Your task to perform on an android device: change your default location settings in chrome Image 0: 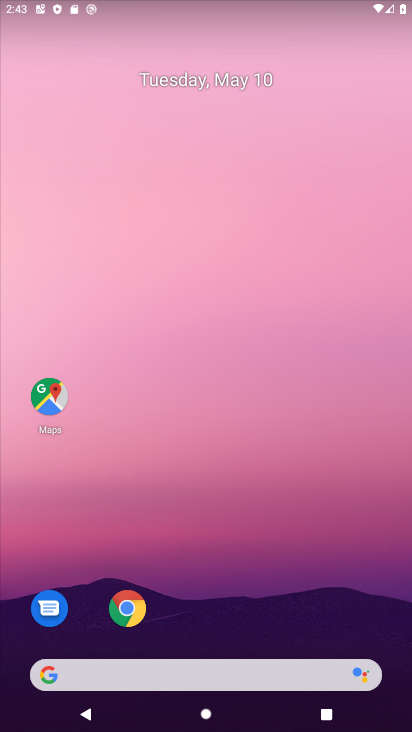
Step 0: drag from (248, 617) to (340, 25)
Your task to perform on an android device: change your default location settings in chrome Image 1: 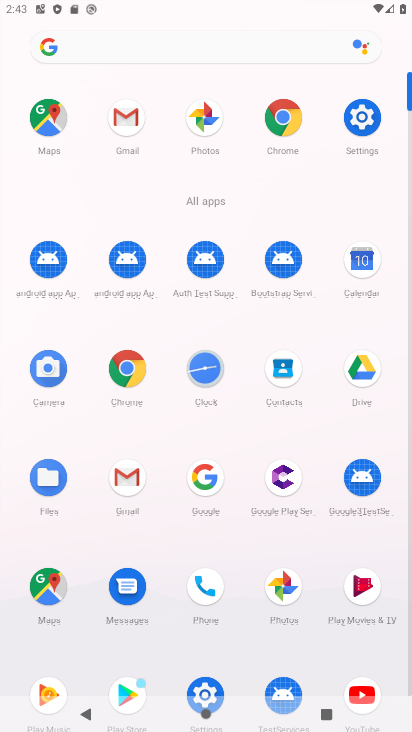
Step 1: click (135, 372)
Your task to perform on an android device: change your default location settings in chrome Image 2: 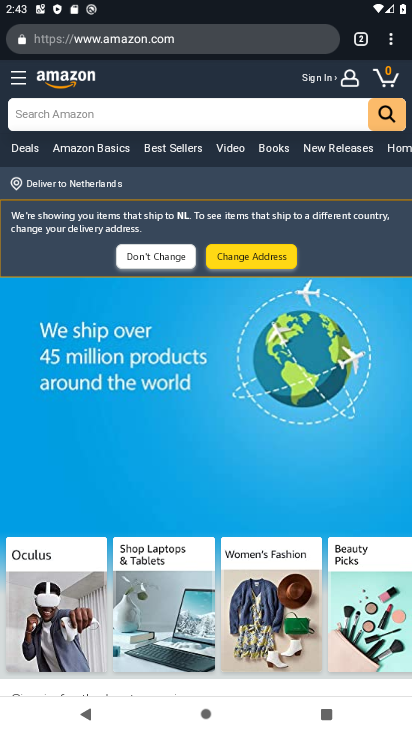
Step 2: click (390, 34)
Your task to perform on an android device: change your default location settings in chrome Image 3: 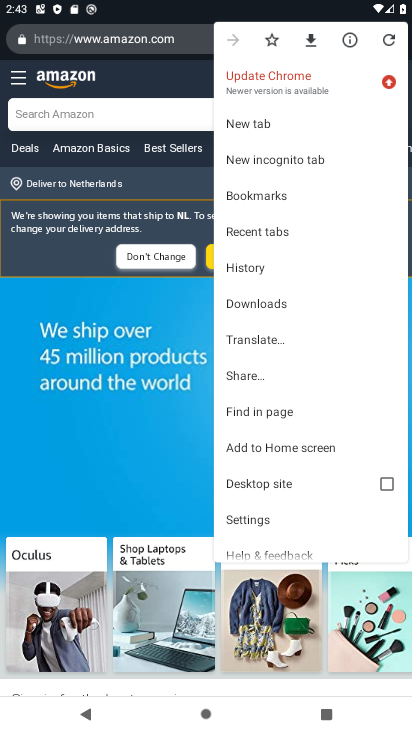
Step 3: click (251, 512)
Your task to perform on an android device: change your default location settings in chrome Image 4: 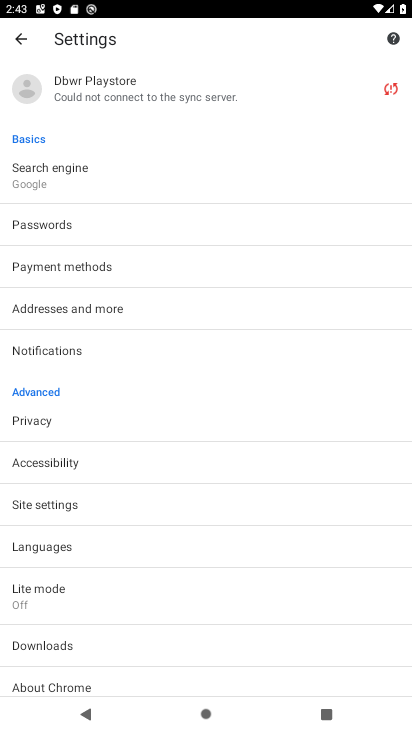
Step 4: click (77, 506)
Your task to perform on an android device: change your default location settings in chrome Image 5: 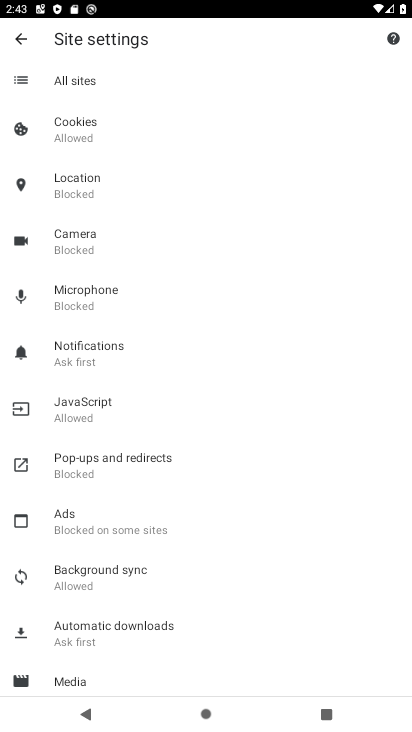
Step 5: click (89, 185)
Your task to perform on an android device: change your default location settings in chrome Image 6: 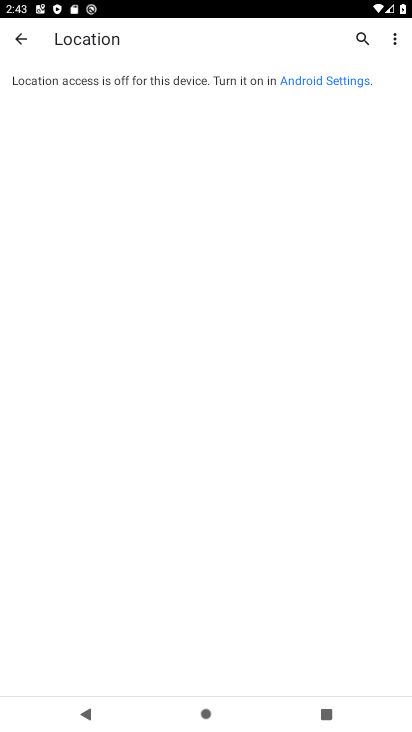
Step 6: click (307, 87)
Your task to perform on an android device: change your default location settings in chrome Image 7: 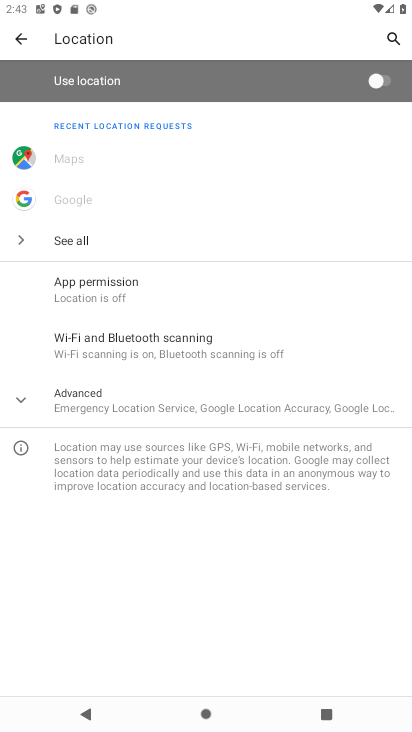
Step 7: click (404, 81)
Your task to perform on an android device: change your default location settings in chrome Image 8: 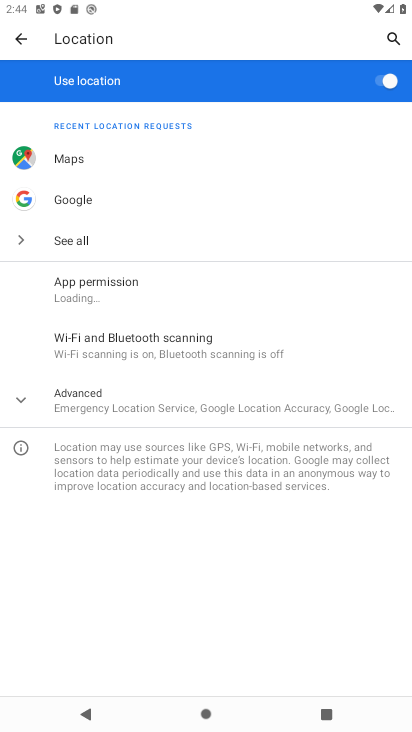
Step 8: task complete